Your task to perform on an android device: View the shopping cart on ebay.com. Add lenovo thinkpad to the cart on ebay.com Image 0: 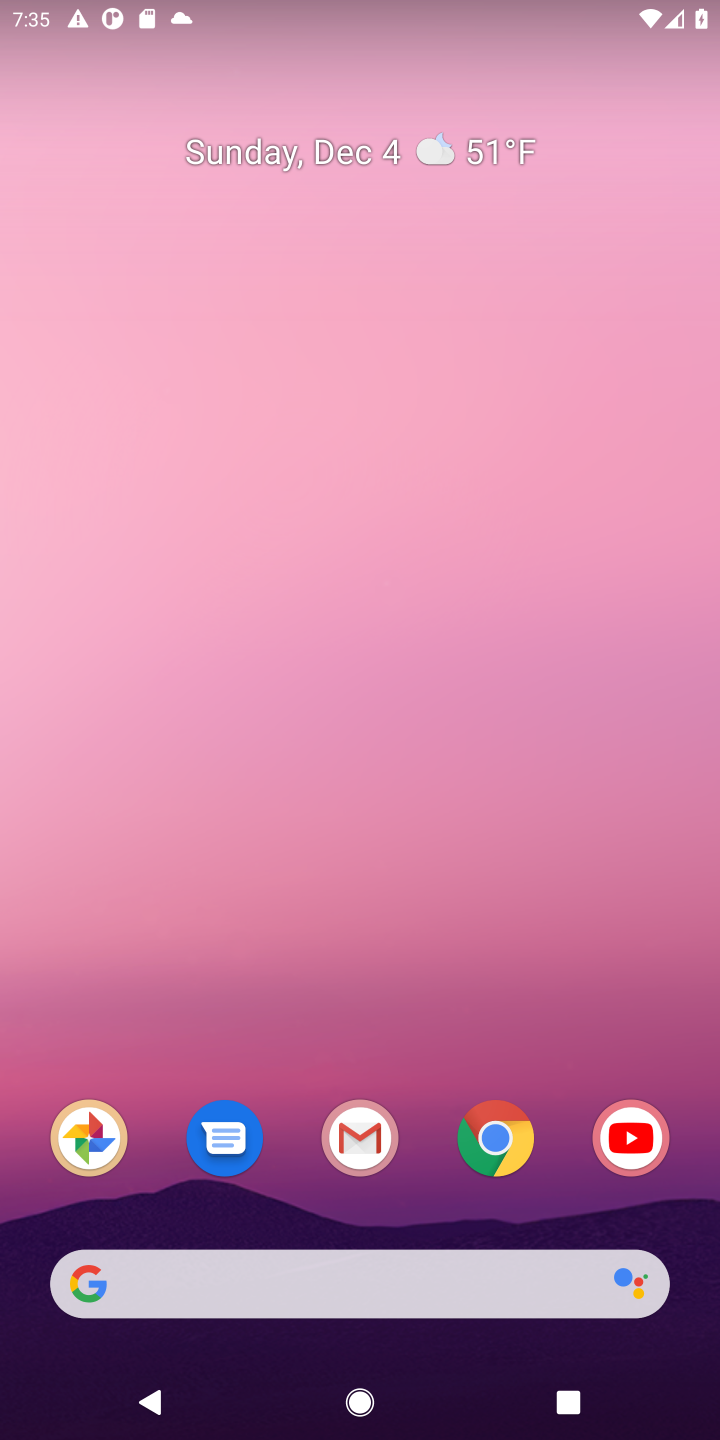
Step 0: click (522, 1135)
Your task to perform on an android device: View the shopping cart on ebay.com. Add lenovo thinkpad to the cart on ebay.com Image 1: 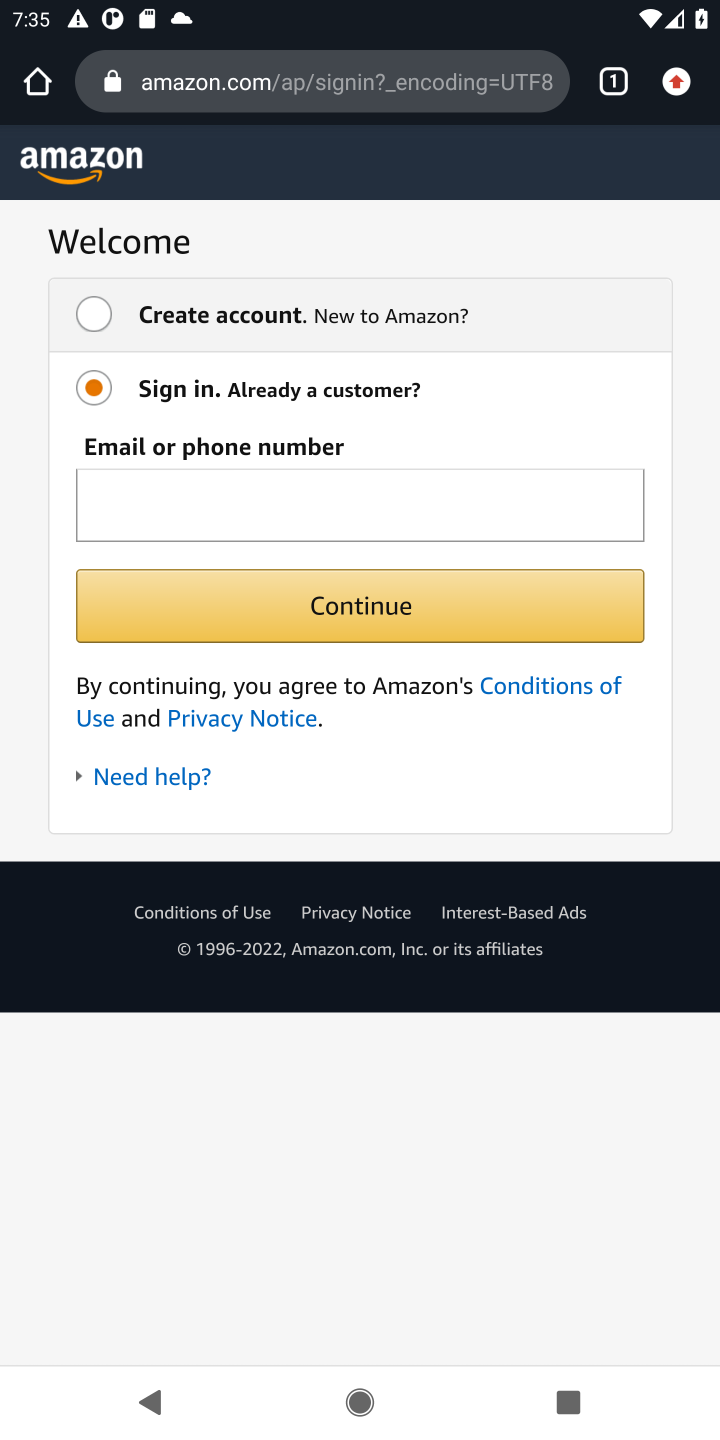
Step 1: click (477, 93)
Your task to perform on an android device: View the shopping cart on ebay.com. Add lenovo thinkpad to the cart on ebay.com Image 2: 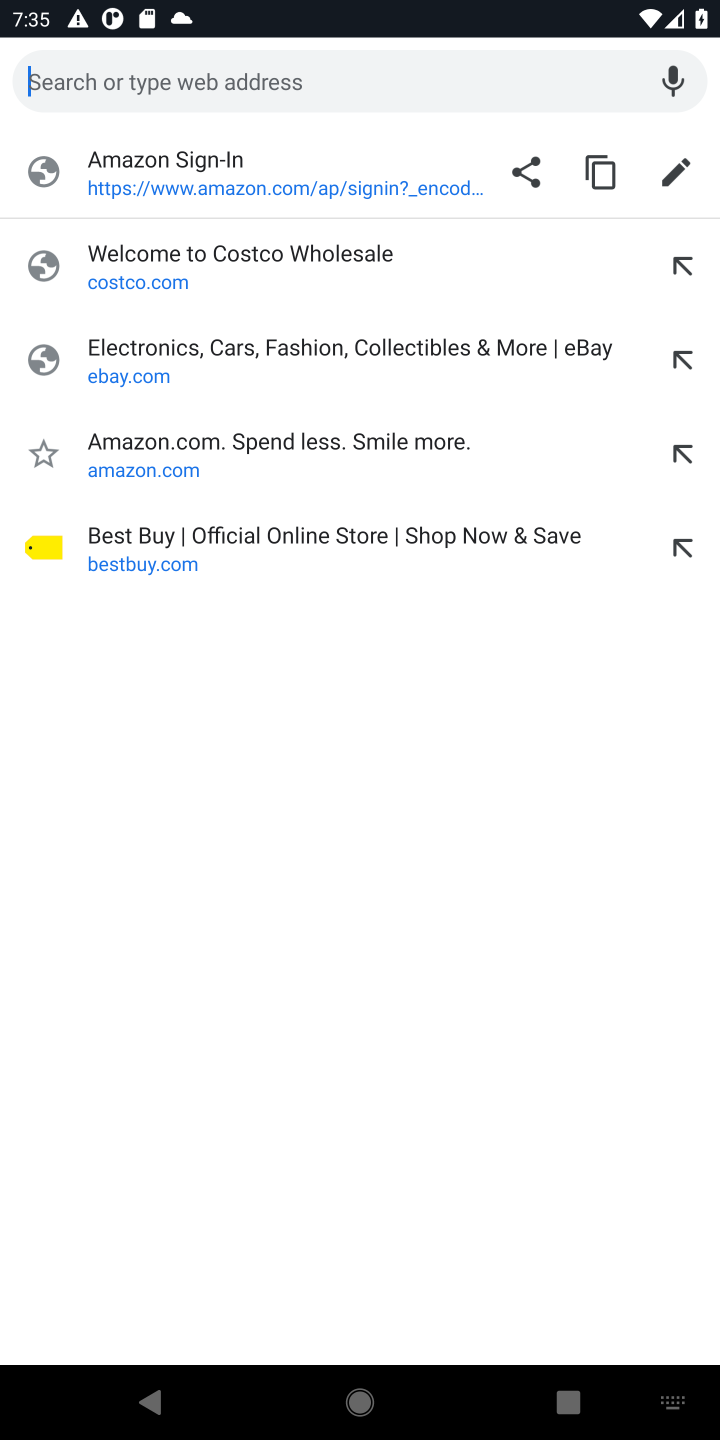
Step 2: click (332, 354)
Your task to perform on an android device: View the shopping cart on ebay.com. Add lenovo thinkpad to the cart on ebay.com Image 3: 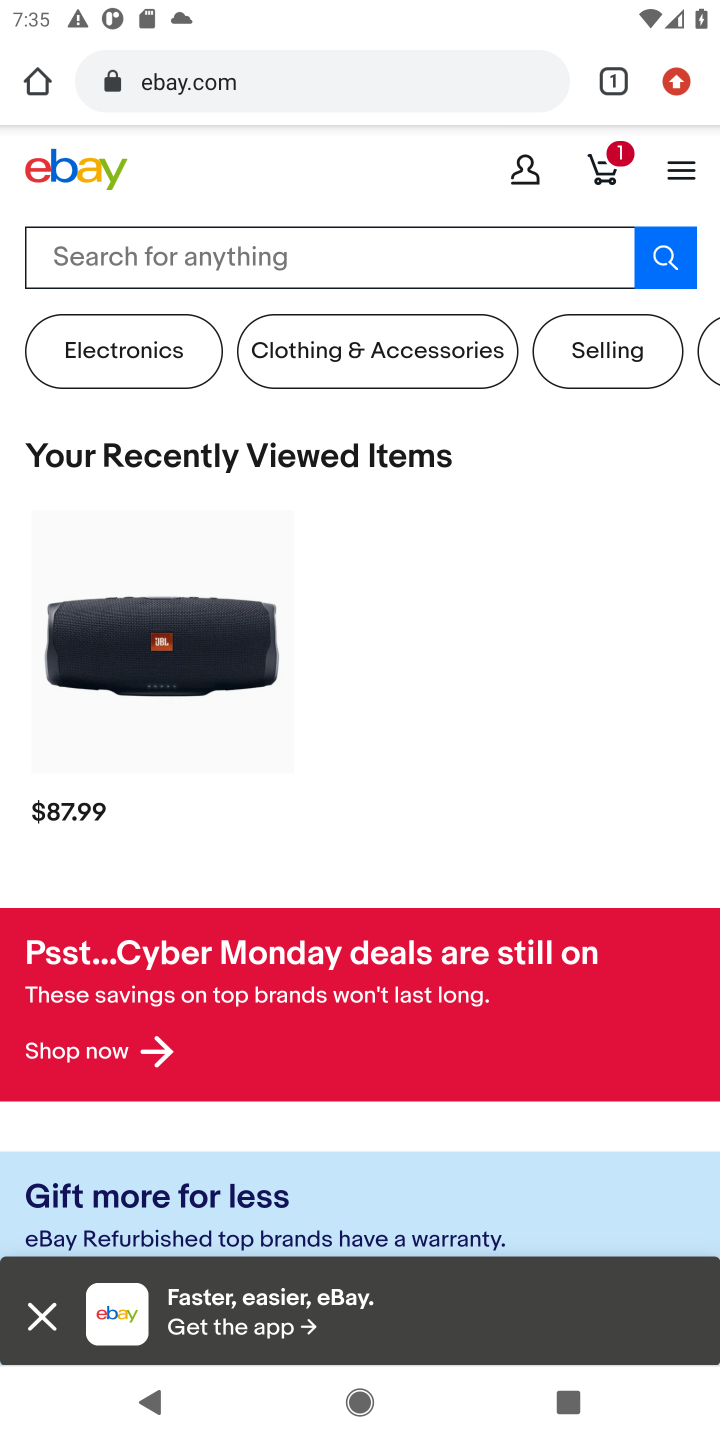
Step 3: click (605, 166)
Your task to perform on an android device: View the shopping cart on ebay.com. Add lenovo thinkpad to the cart on ebay.com Image 4: 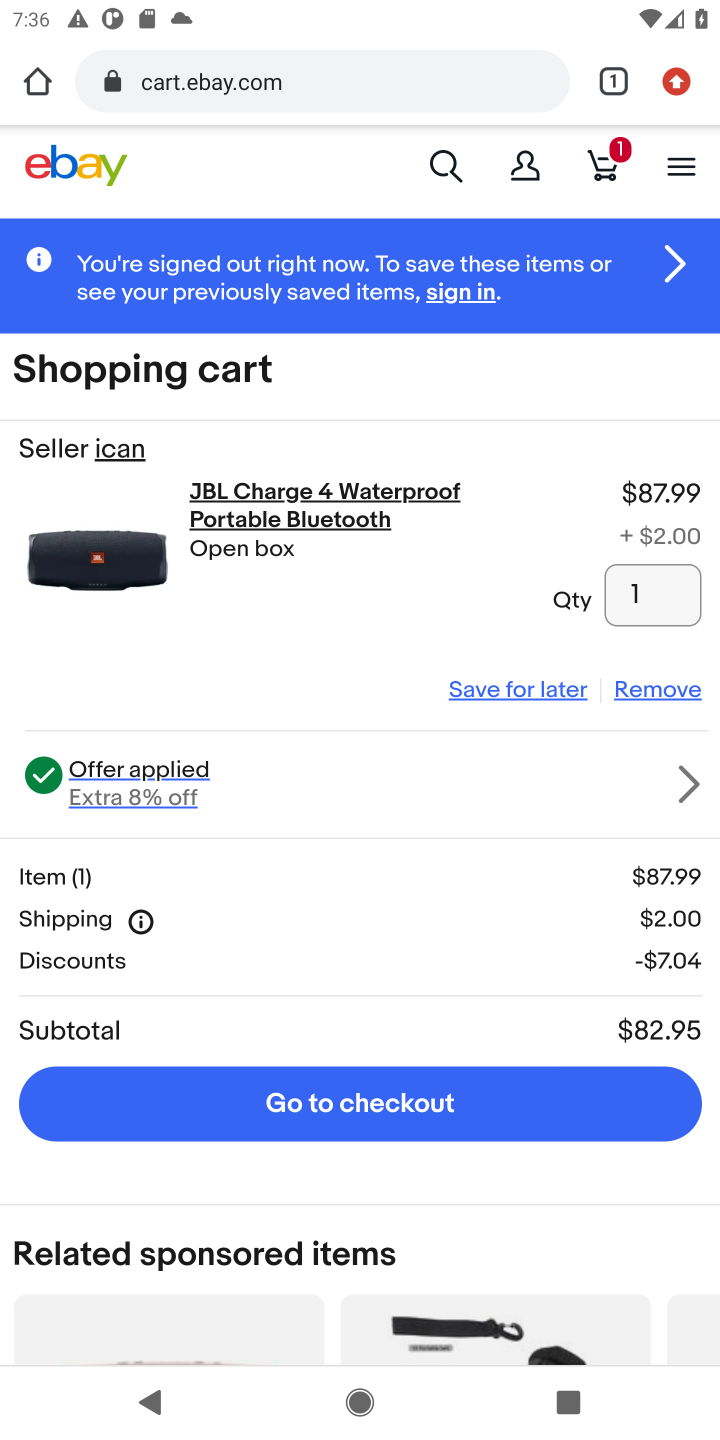
Step 4: click (442, 164)
Your task to perform on an android device: View the shopping cart on ebay.com. Add lenovo thinkpad to the cart on ebay.com Image 5: 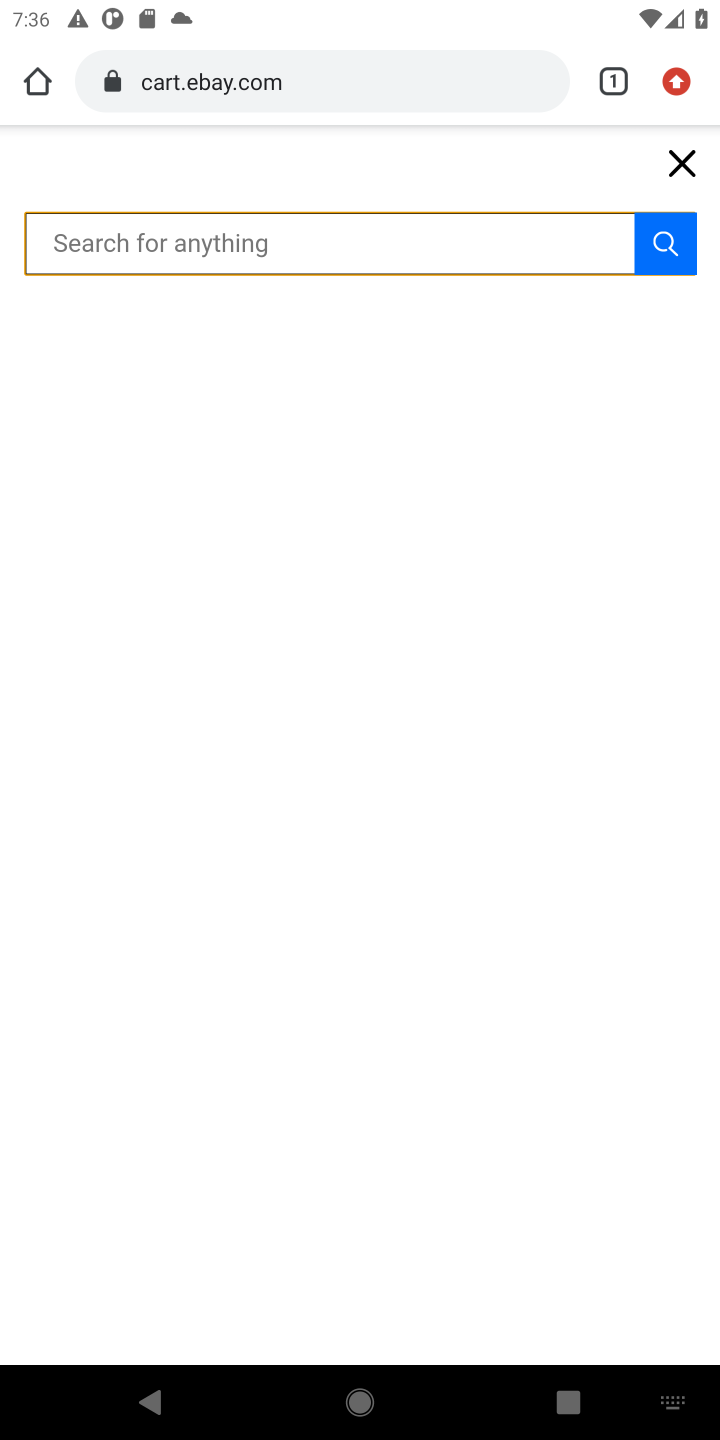
Step 5: type "lenovo thinkpad"
Your task to perform on an android device: View the shopping cart on ebay.com. Add lenovo thinkpad to the cart on ebay.com Image 6: 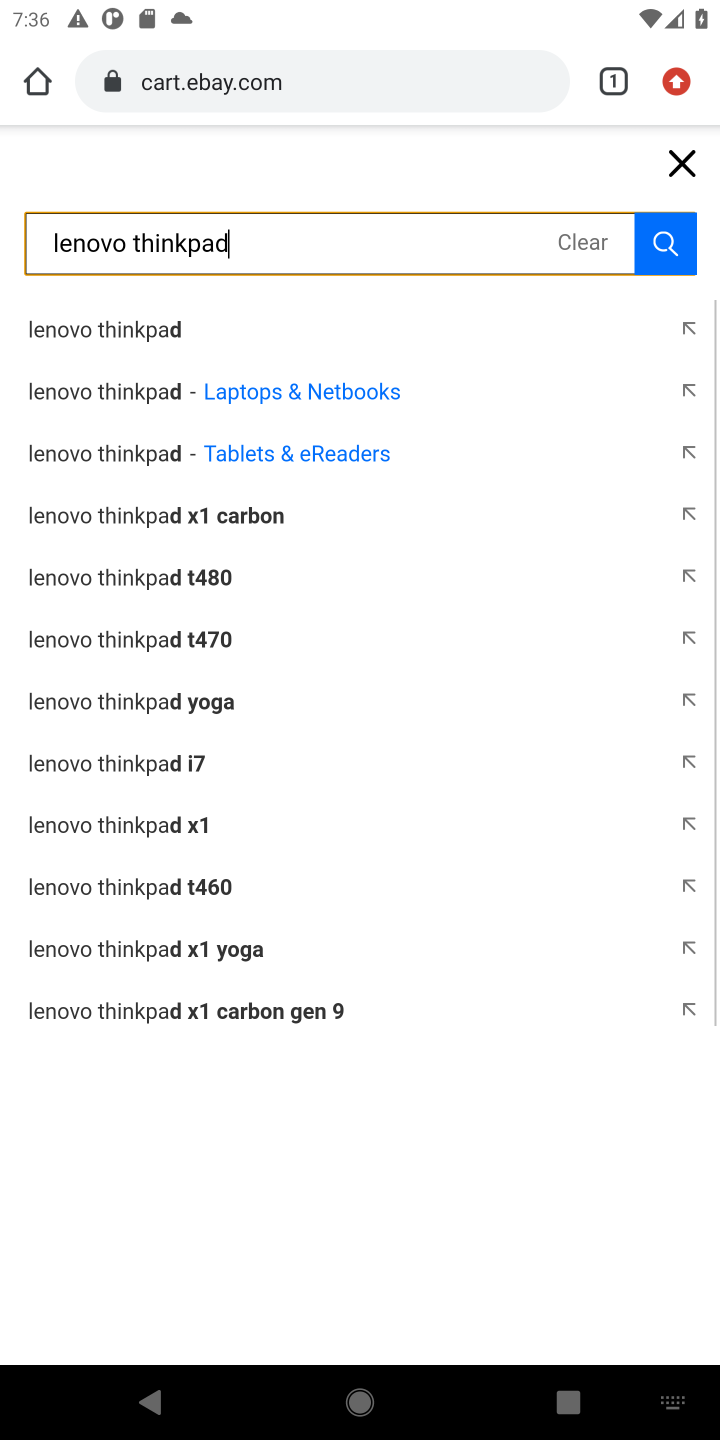
Step 6: press enter
Your task to perform on an android device: View the shopping cart on ebay.com. Add lenovo thinkpad to the cart on ebay.com Image 7: 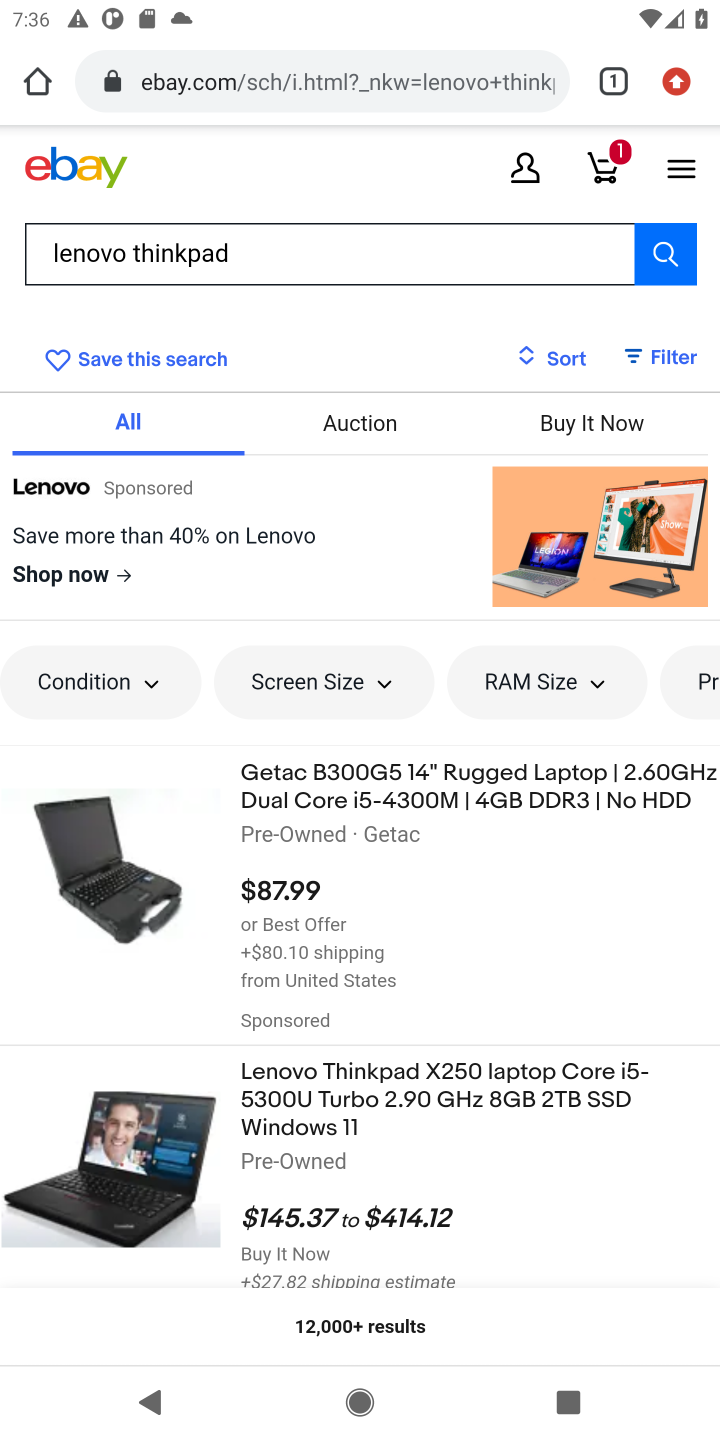
Step 7: click (136, 1110)
Your task to perform on an android device: View the shopping cart on ebay.com. Add lenovo thinkpad to the cart on ebay.com Image 8: 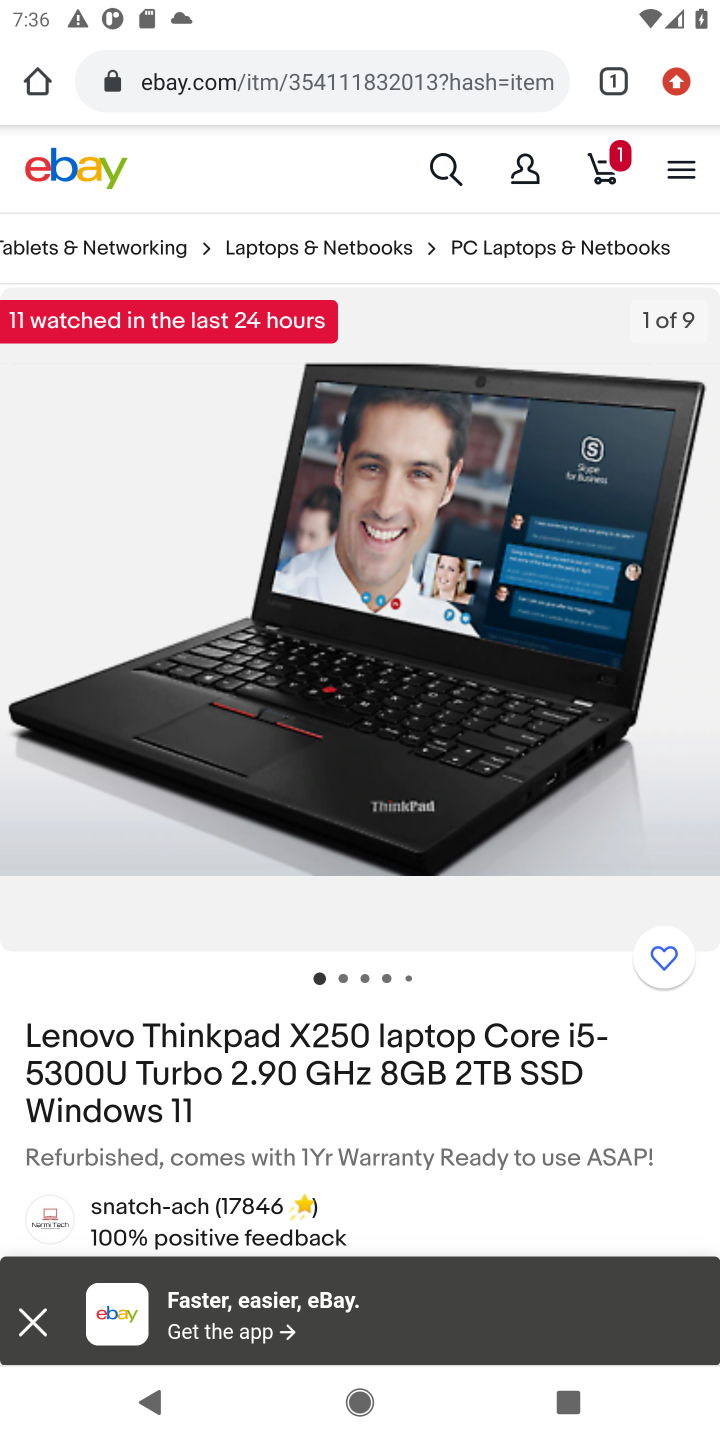
Step 8: drag from (407, 1268) to (481, 656)
Your task to perform on an android device: View the shopping cart on ebay.com. Add lenovo thinkpad to the cart on ebay.com Image 9: 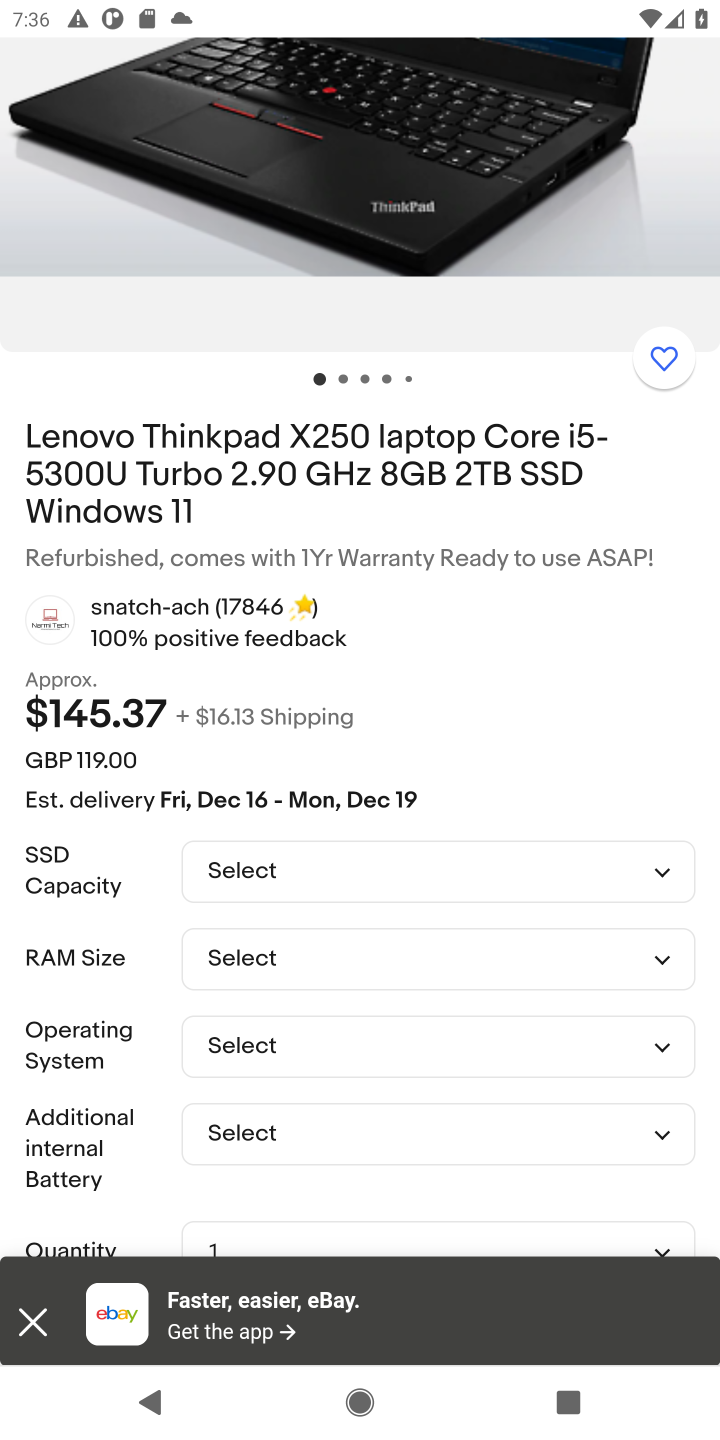
Step 9: drag from (323, 1134) to (373, 341)
Your task to perform on an android device: View the shopping cart on ebay.com. Add lenovo thinkpad to the cart on ebay.com Image 10: 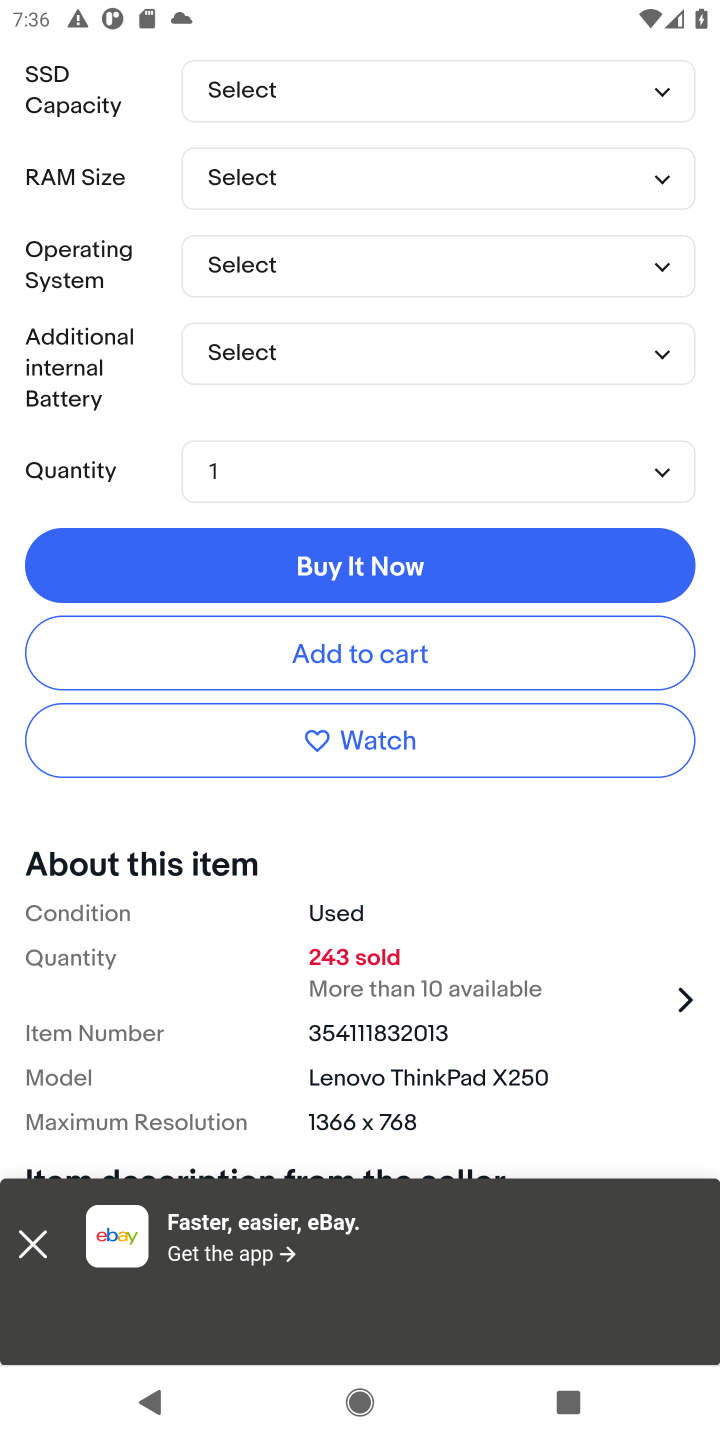
Step 10: click (405, 636)
Your task to perform on an android device: View the shopping cart on ebay.com. Add lenovo thinkpad to the cart on ebay.com Image 11: 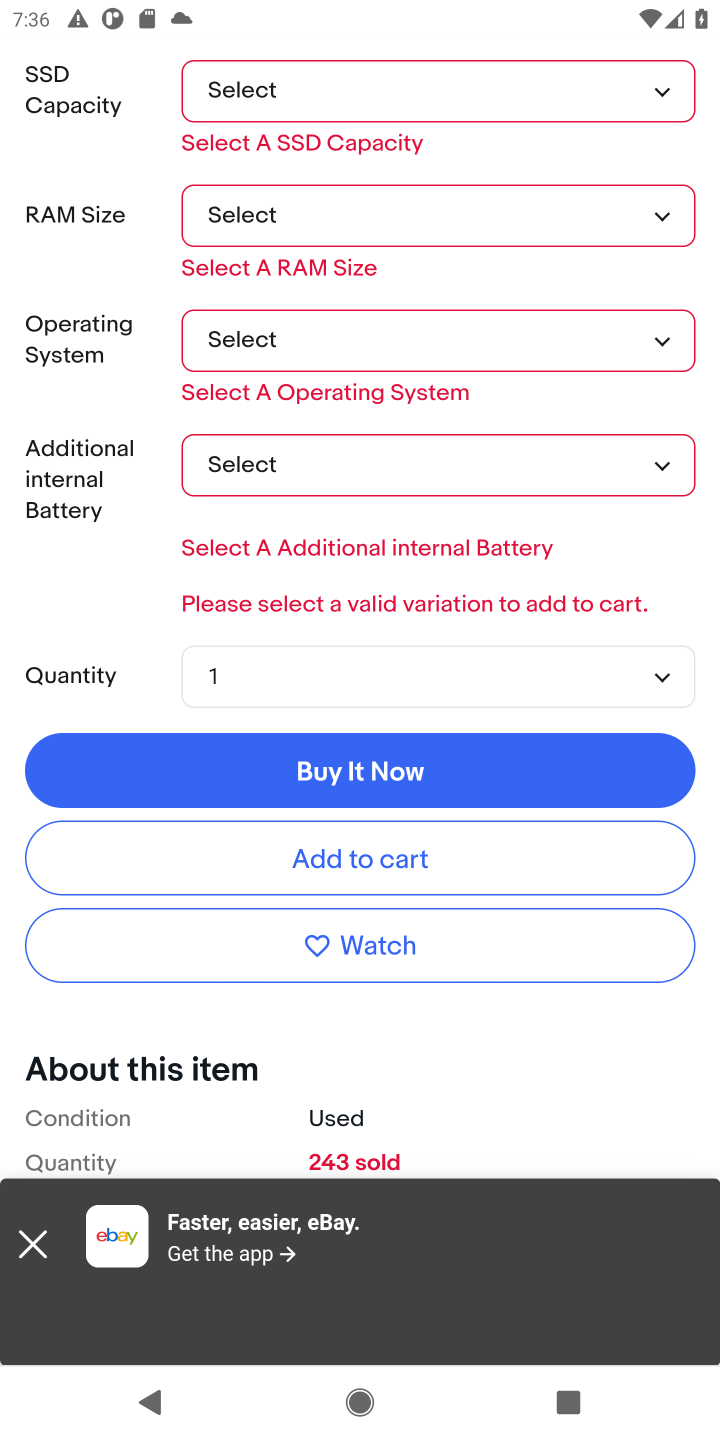
Step 11: press back button
Your task to perform on an android device: View the shopping cart on ebay.com. Add lenovo thinkpad to the cart on ebay.com Image 12: 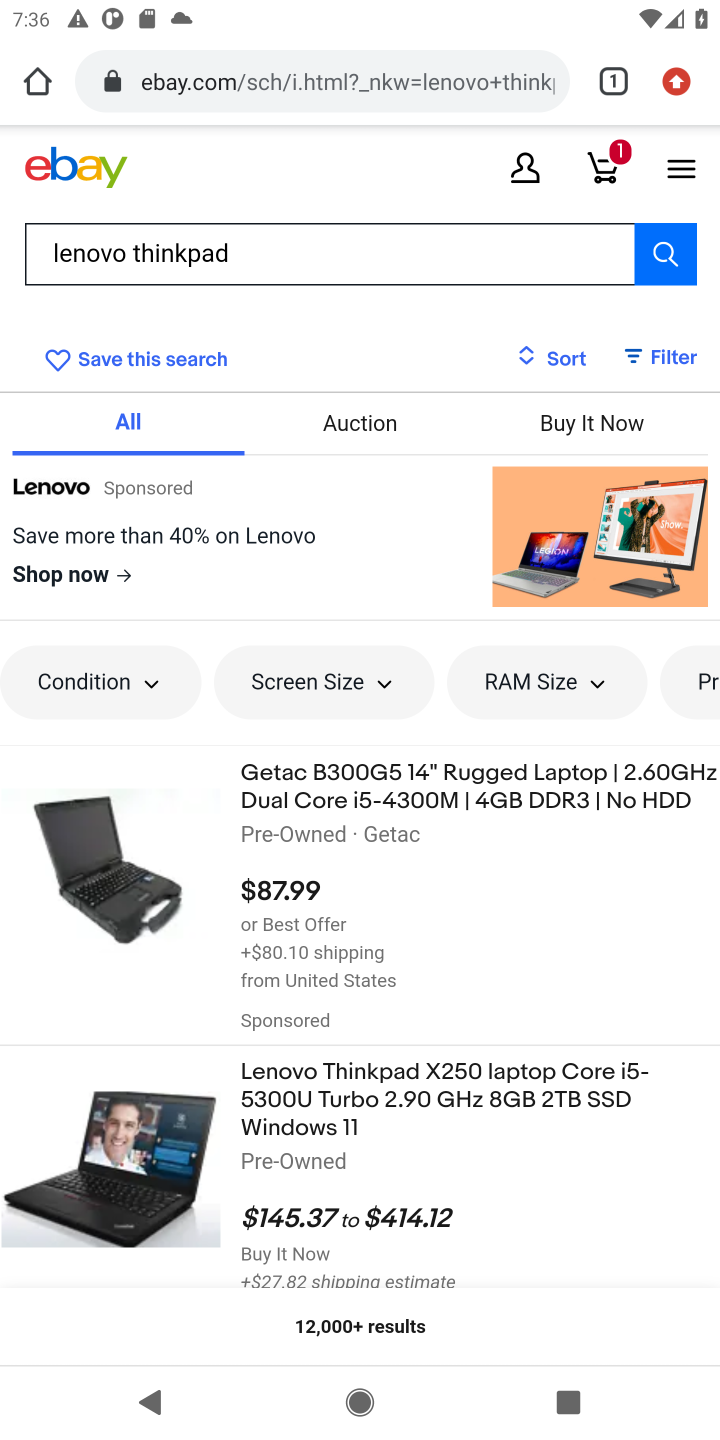
Step 12: drag from (544, 1108) to (680, 536)
Your task to perform on an android device: View the shopping cart on ebay.com. Add lenovo thinkpad to the cart on ebay.com Image 13: 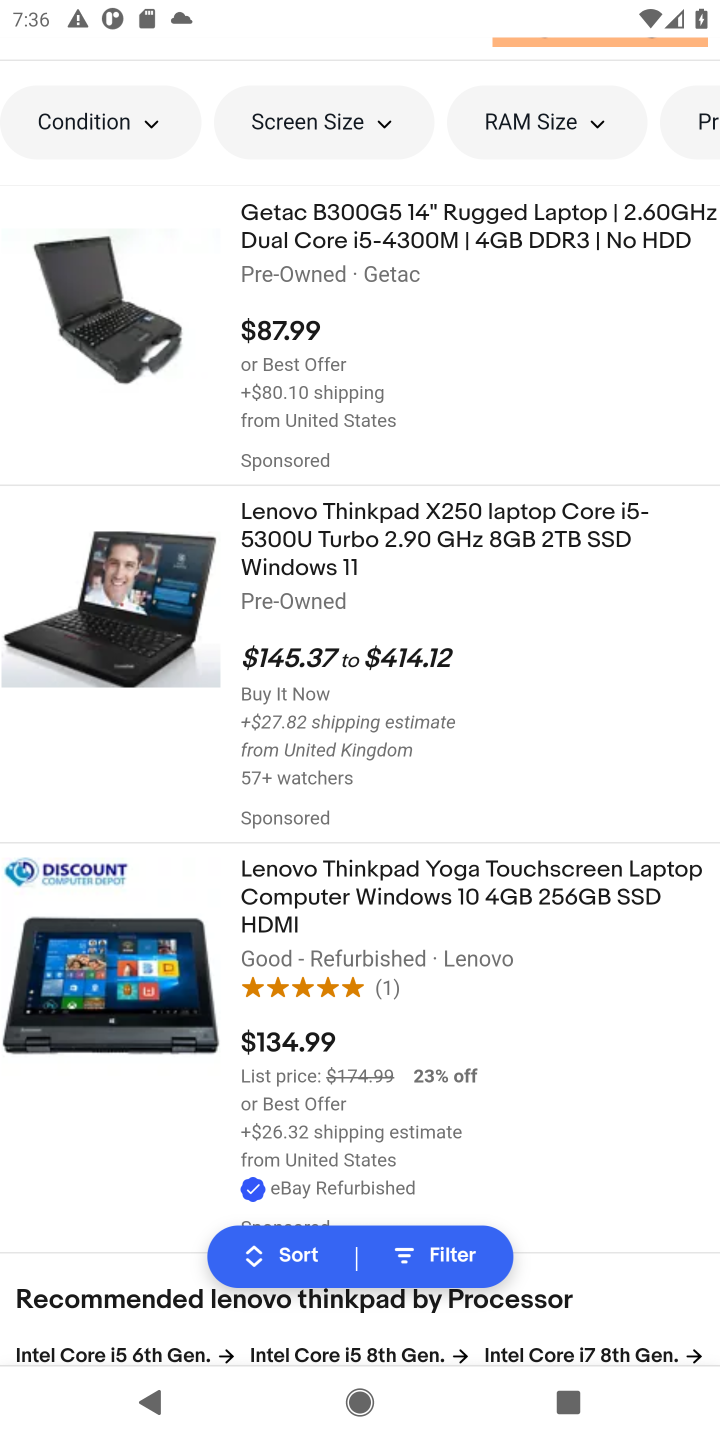
Step 13: click (76, 971)
Your task to perform on an android device: View the shopping cart on ebay.com. Add lenovo thinkpad to the cart on ebay.com Image 14: 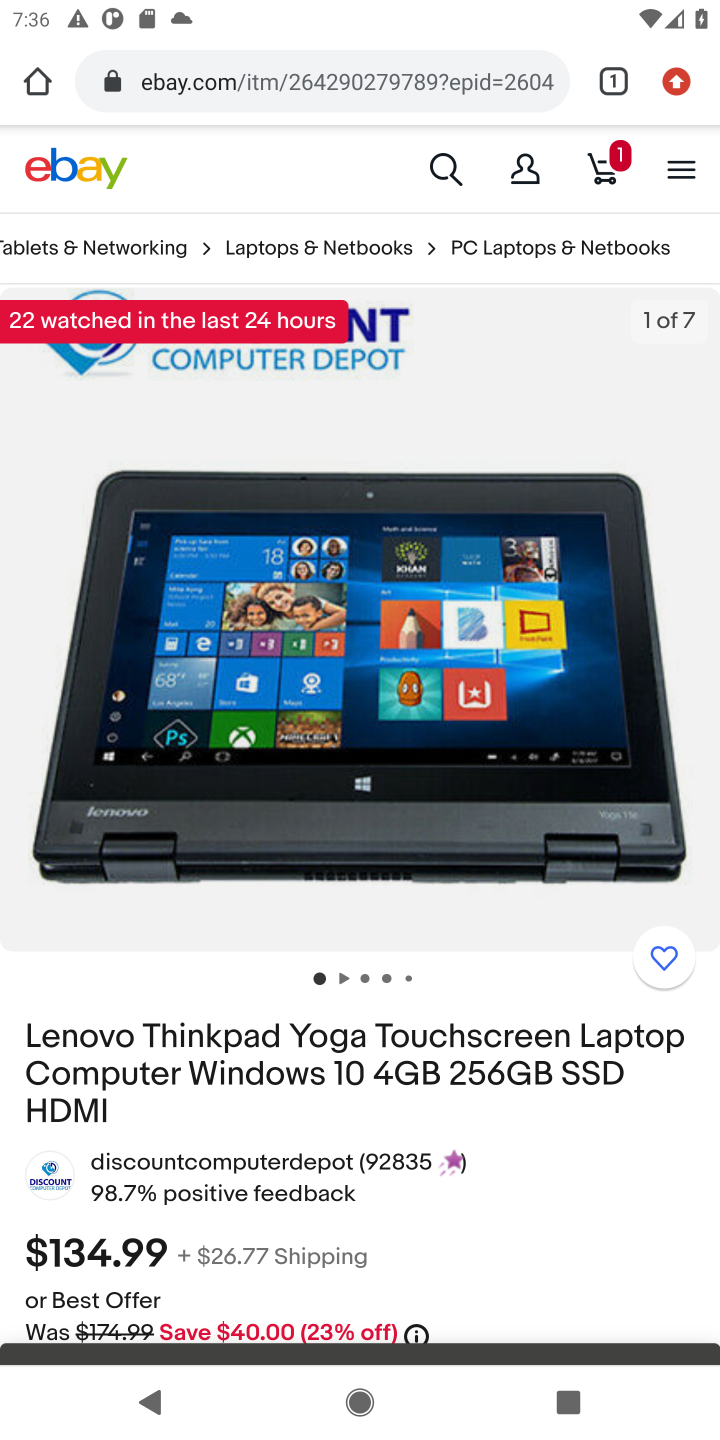
Step 14: drag from (438, 1080) to (483, 330)
Your task to perform on an android device: View the shopping cart on ebay.com. Add lenovo thinkpad to the cart on ebay.com Image 15: 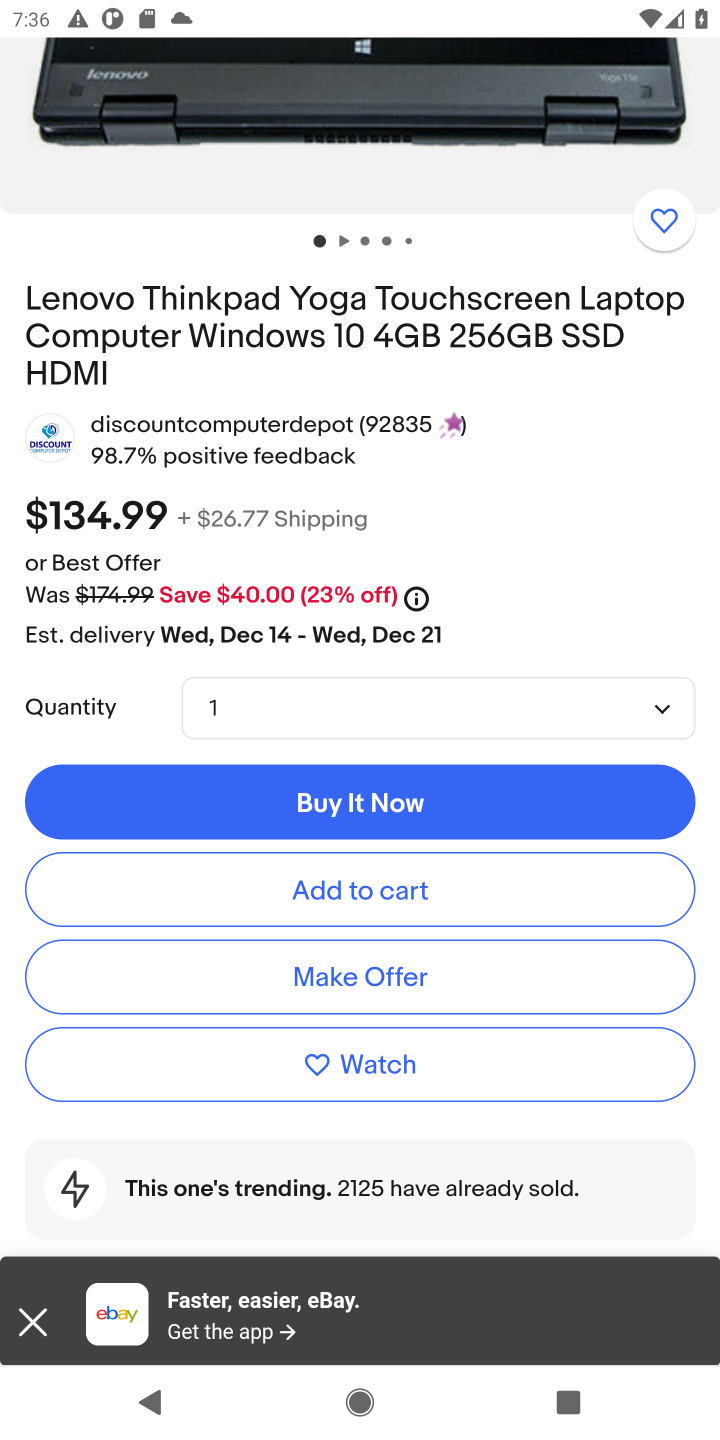
Step 15: click (351, 891)
Your task to perform on an android device: View the shopping cart on ebay.com. Add lenovo thinkpad to the cart on ebay.com Image 16: 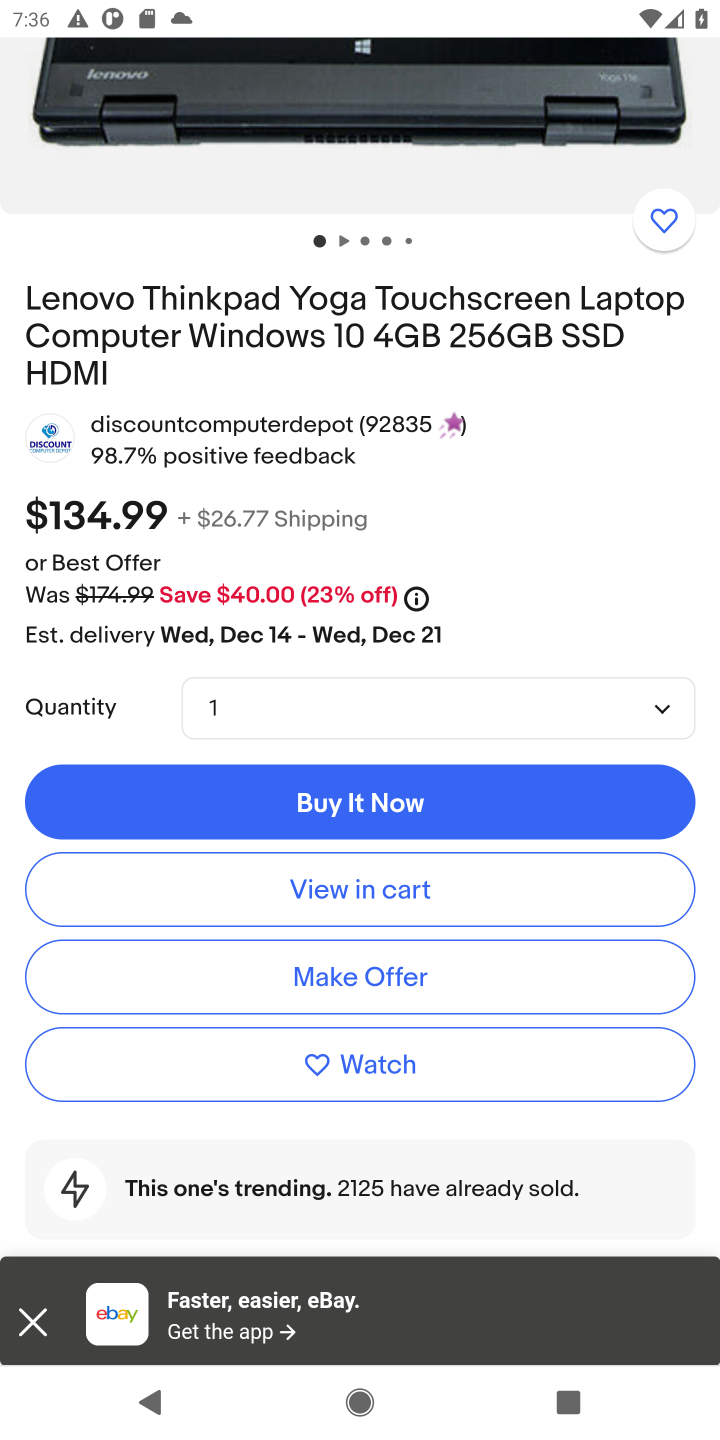
Step 16: click (351, 891)
Your task to perform on an android device: View the shopping cart on ebay.com. Add lenovo thinkpad to the cart on ebay.com Image 17: 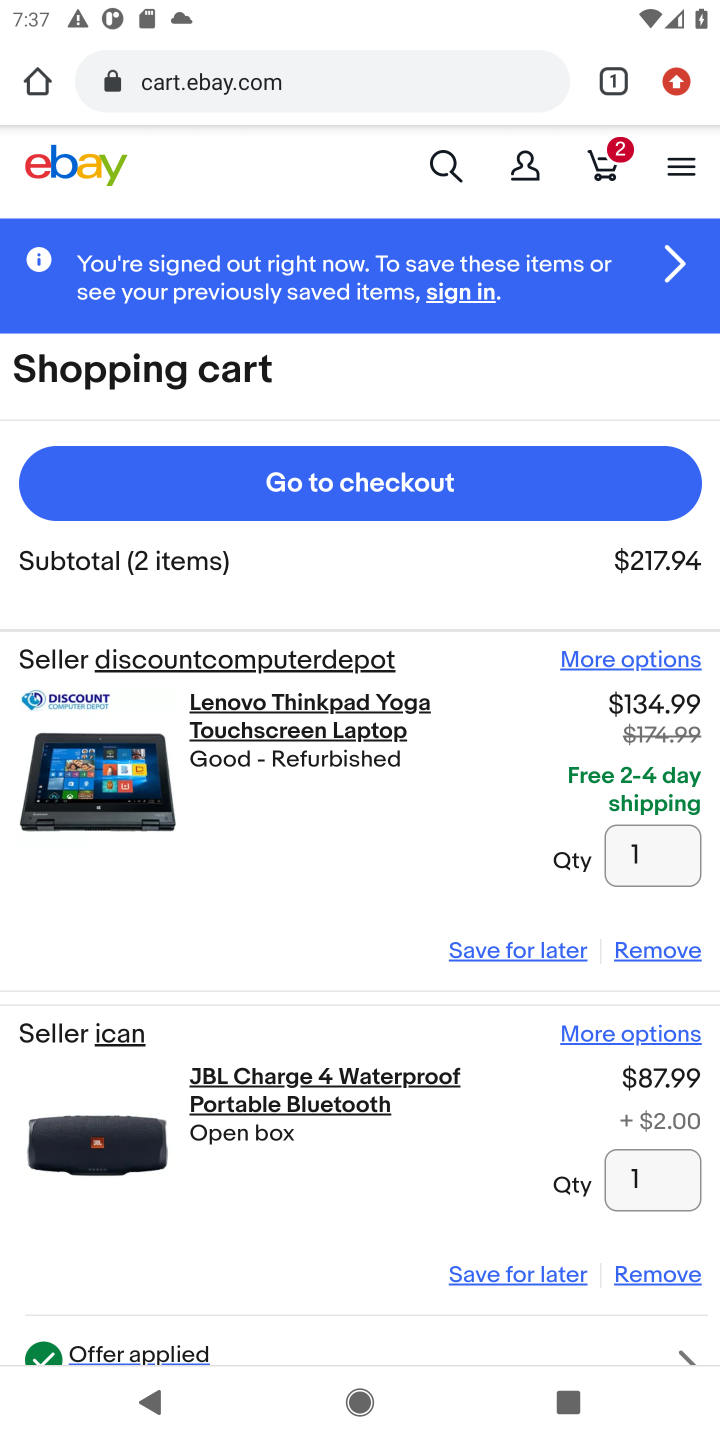
Step 17: task complete